Your task to perform on an android device: Open accessibility settings Image 0: 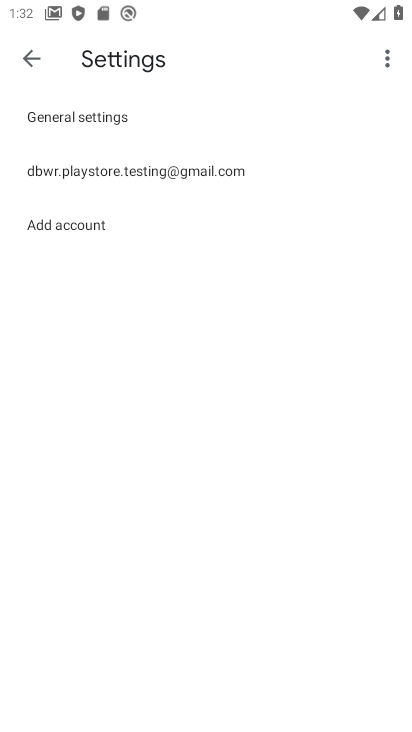
Step 0: press home button
Your task to perform on an android device: Open accessibility settings Image 1: 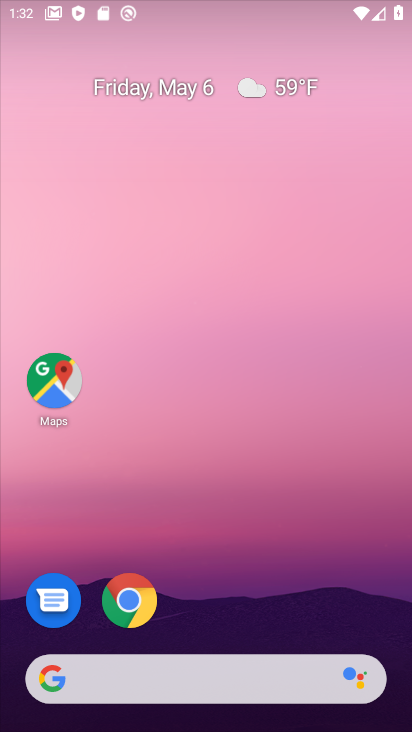
Step 1: drag from (265, 568) to (305, 33)
Your task to perform on an android device: Open accessibility settings Image 2: 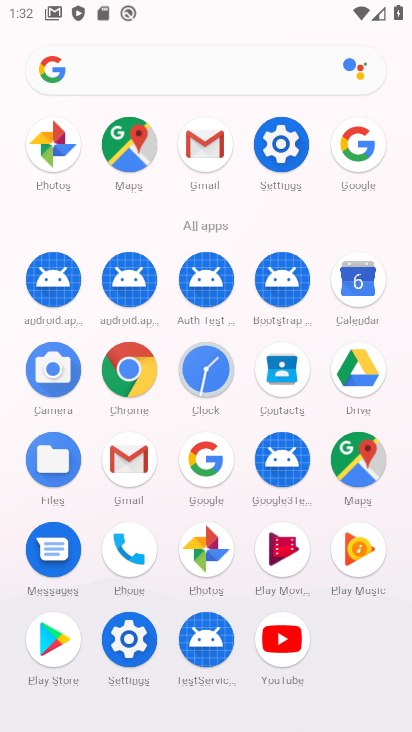
Step 2: click (281, 141)
Your task to perform on an android device: Open accessibility settings Image 3: 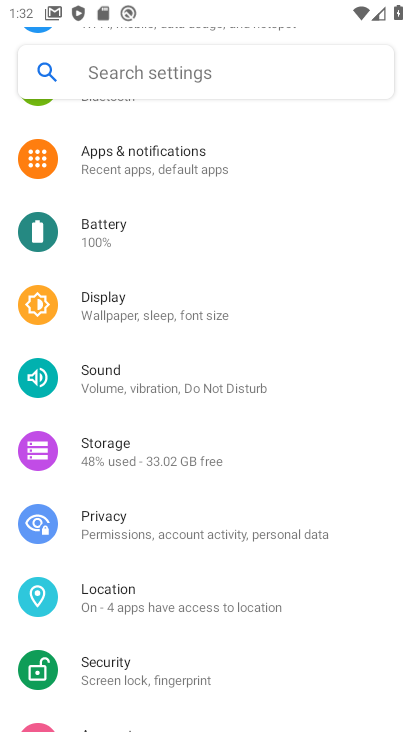
Step 3: drag from (138, 573) to (206, 82)
Your task to perform on an android device: Open accessibility settings Image 4: 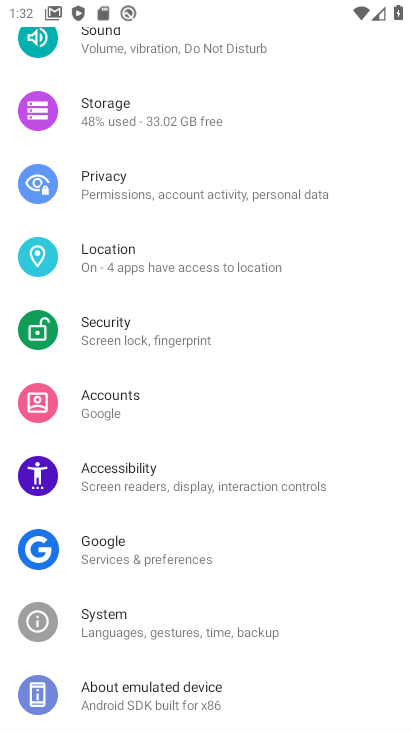
Step 4: click (127, 493)
Your task to perform on an android device: Open accessibility settings Image 5: 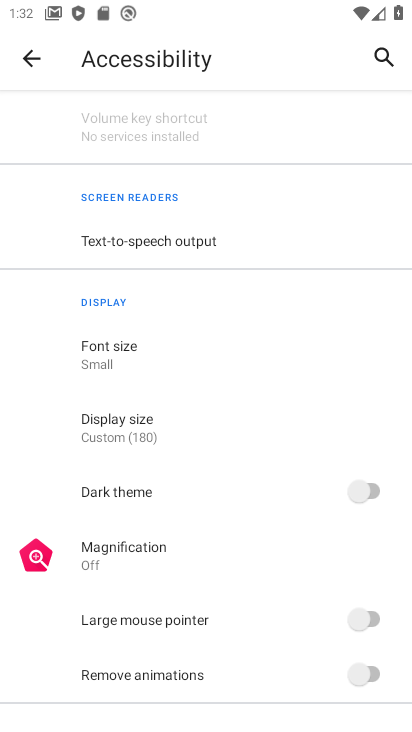
Step 5: task complete